Your task to perform on an android device: Clear all items from cart on walmart. Add dell xps to the cart on walmart Image 0: 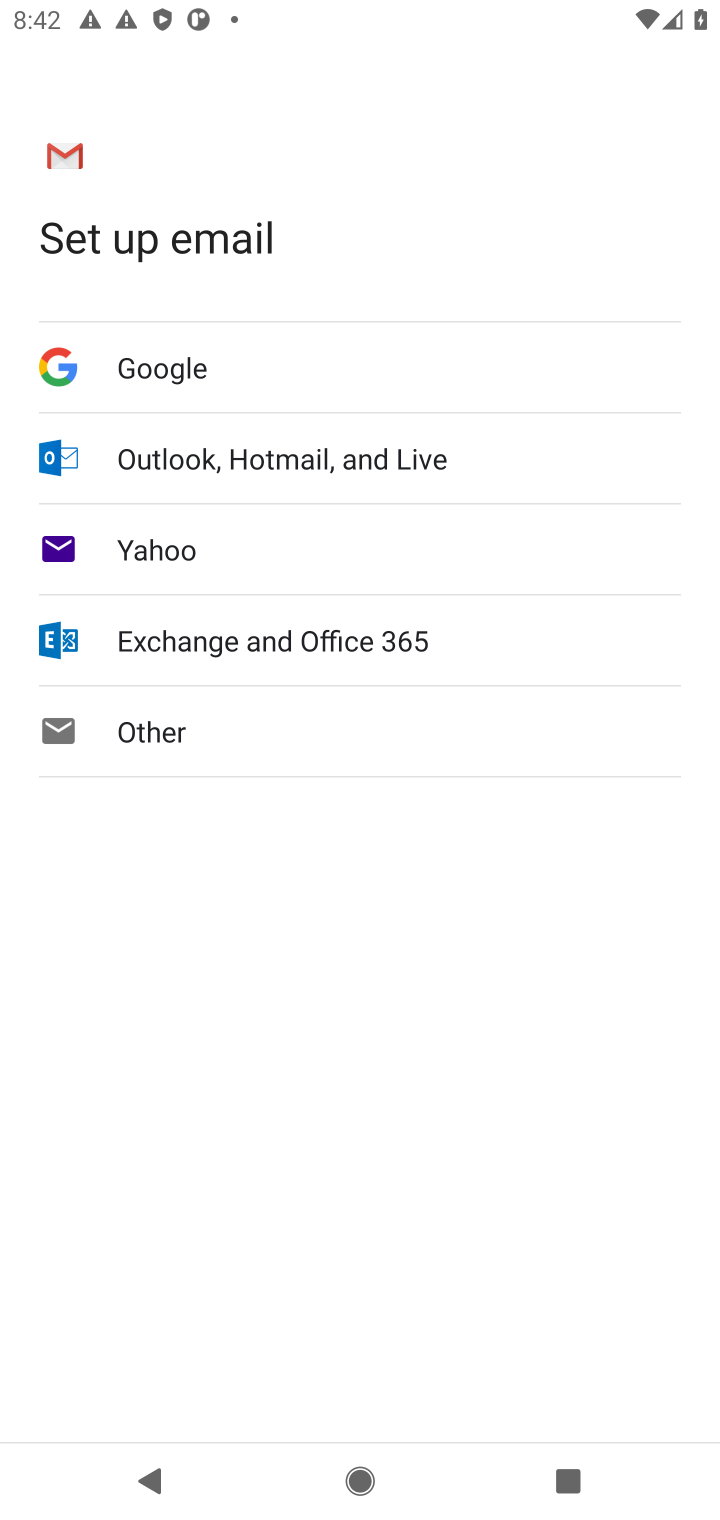
Step 0: press home button
Your task to perform on an android device: Clear all items from cart on walmart. Add dell xps to the cart on walmart Image 1: 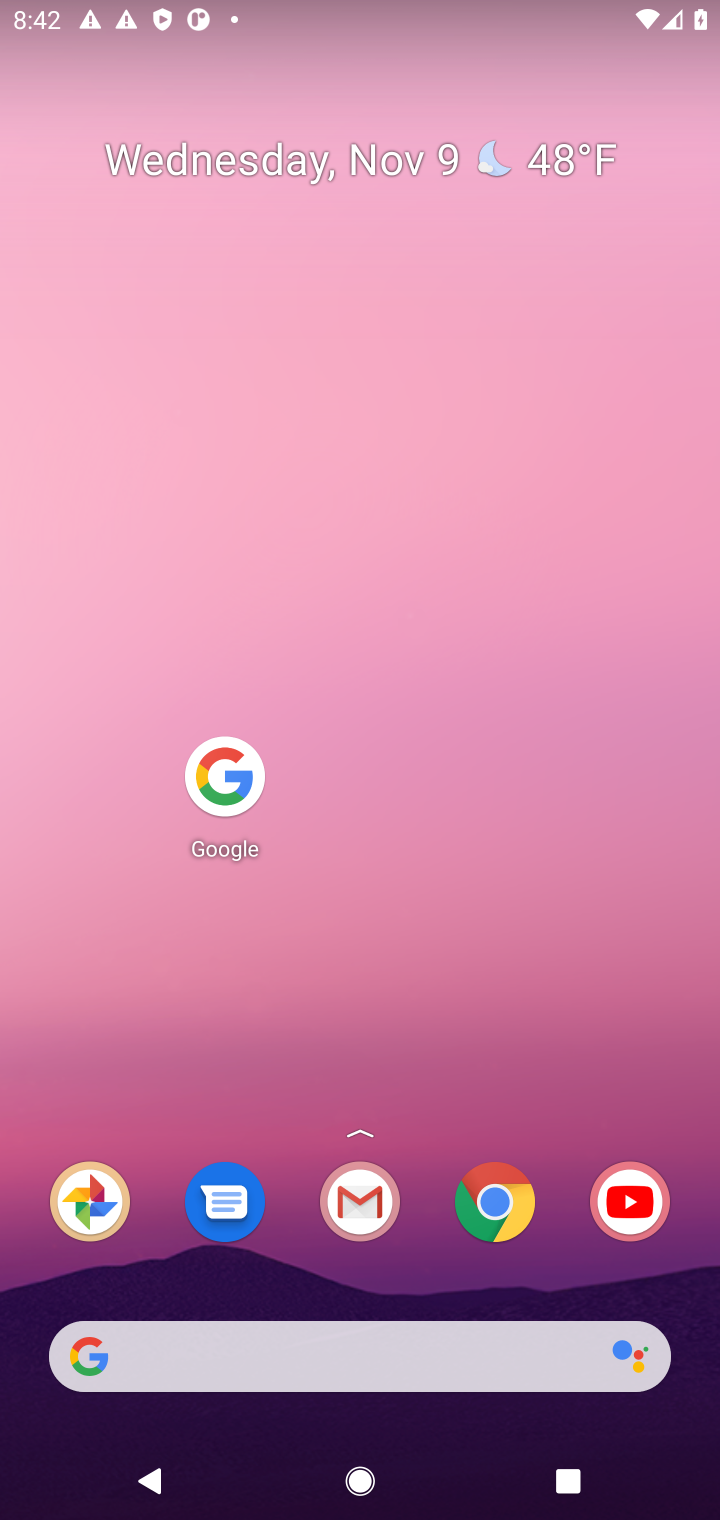
Step 1: click (214, 774)
Your task to perform on an android device: Clear all items from cart on walmart. Add dell xps to the cart on walmart Image 2: 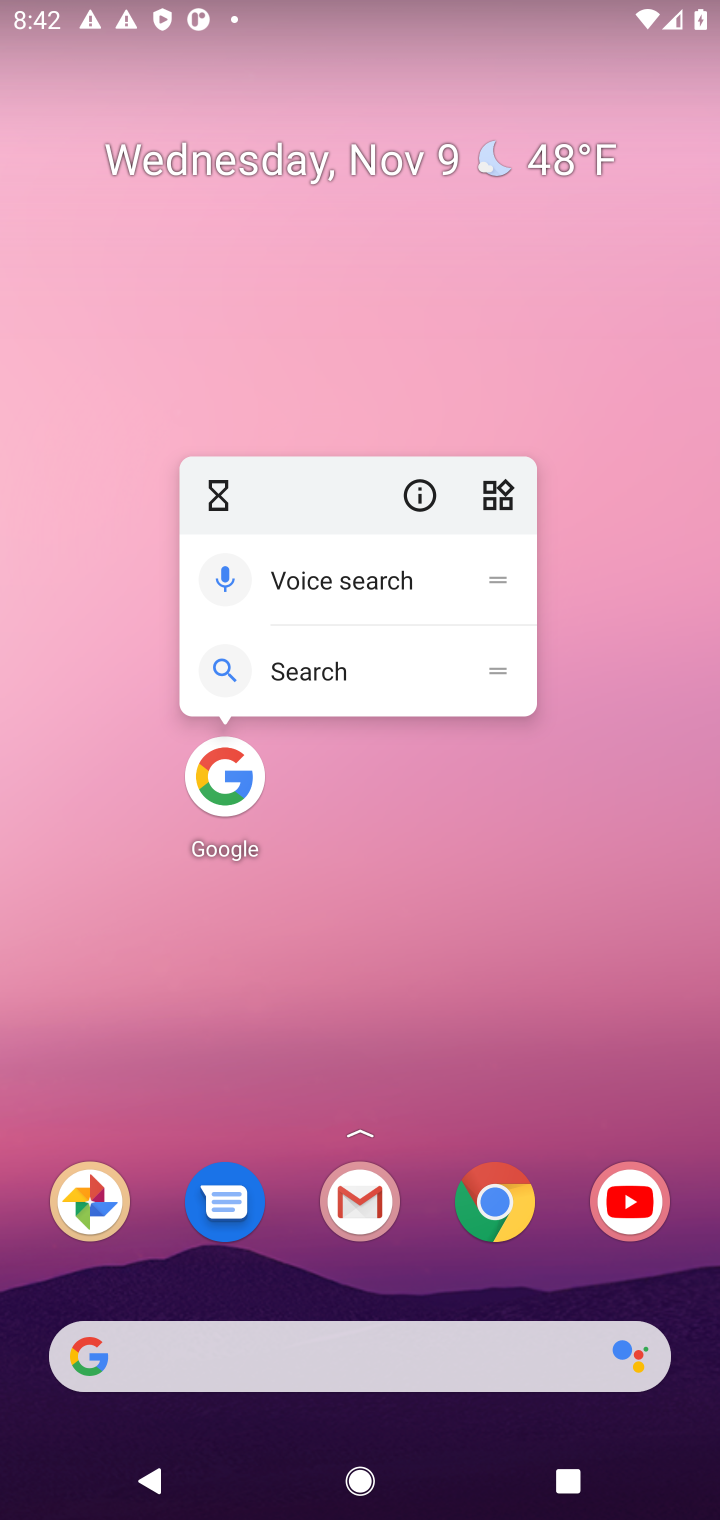
Step 2: click (228, 792)
Your task to perform on an android device: Clear all items from cart on walmart. Add dell xps to the cart on walmart Image 3: 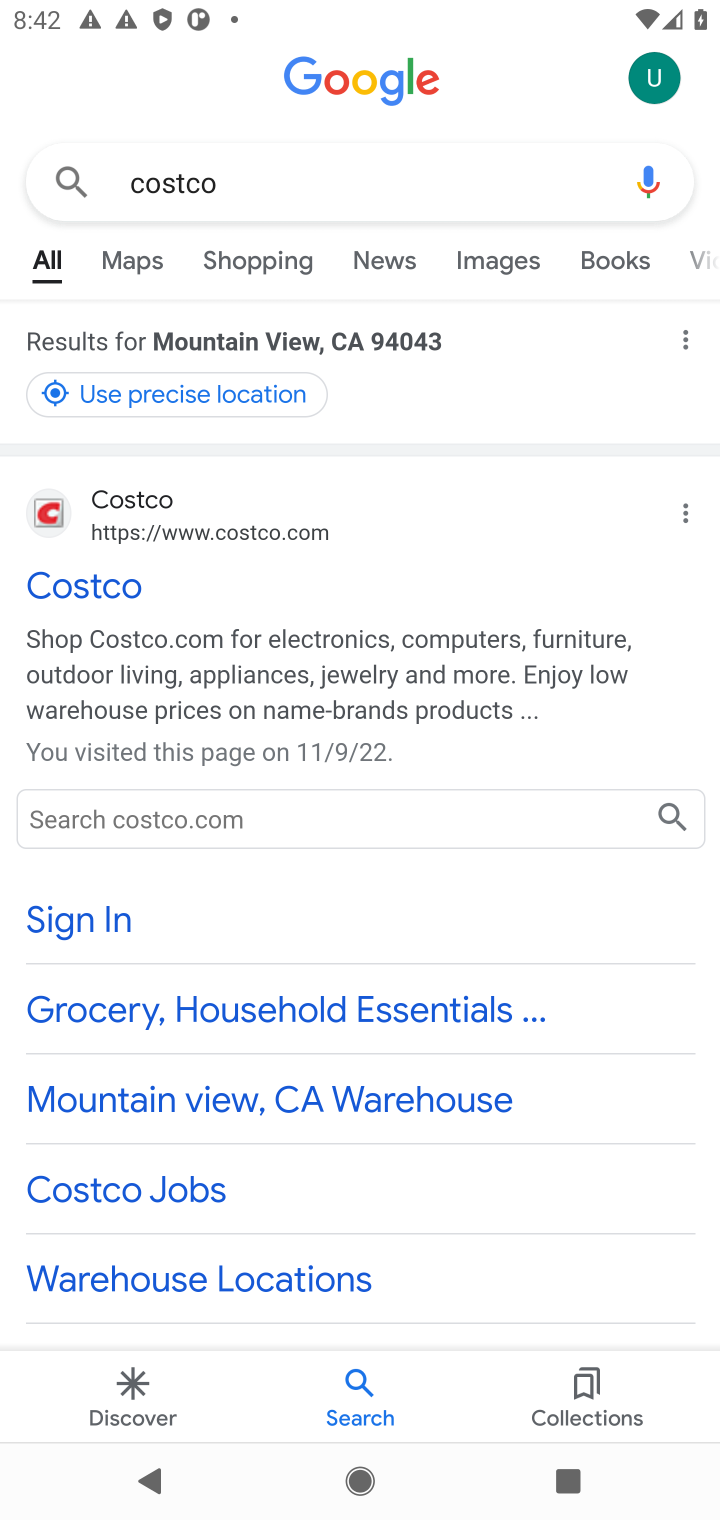
Step 3: click (251, 182)
Your task to perform on an android device: Clear all items from cart on walmart. Add dell xps to the cart on walmart Image 4: 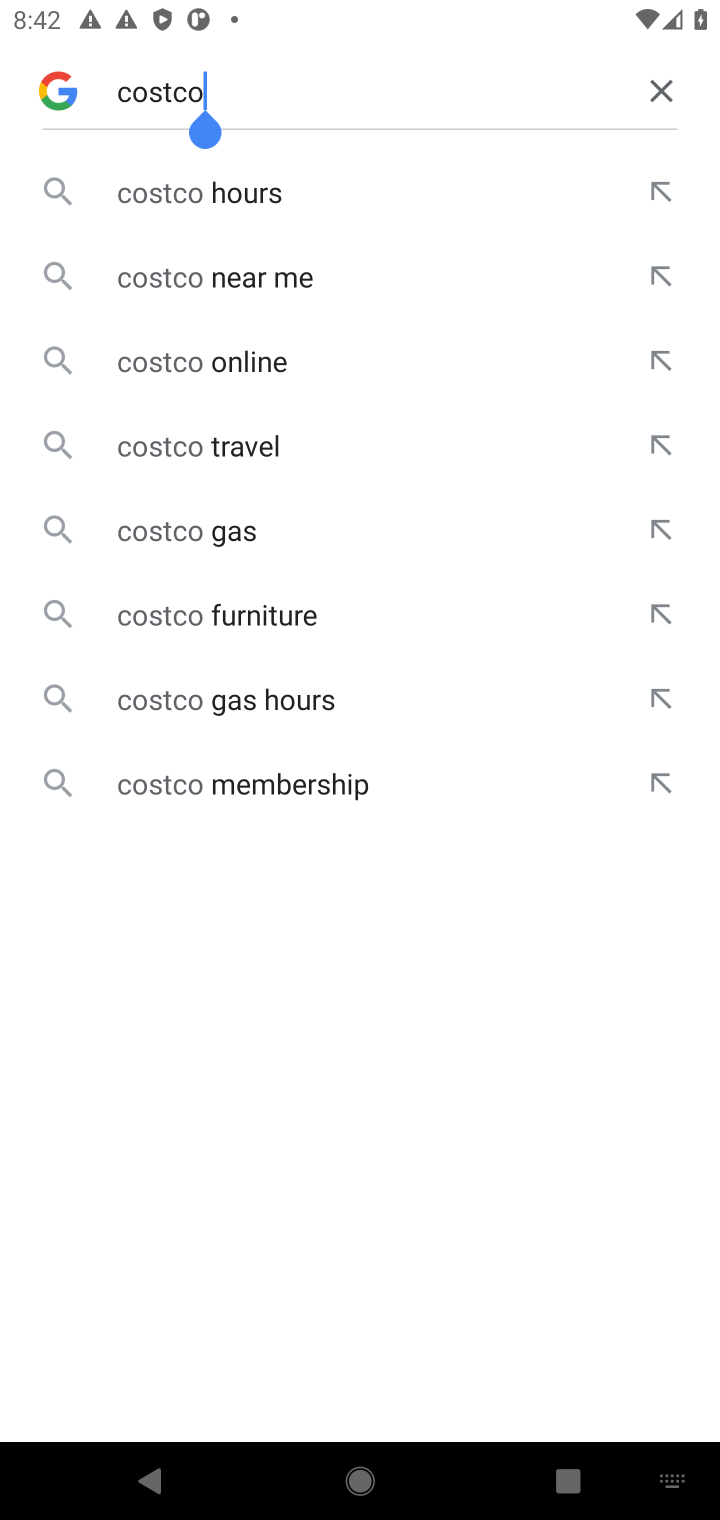
Step 4: click (658, 82)
Your task to perform on an android device: Clear all items from cart on walmart. Add dell xps to the cart on walmart Image 5: 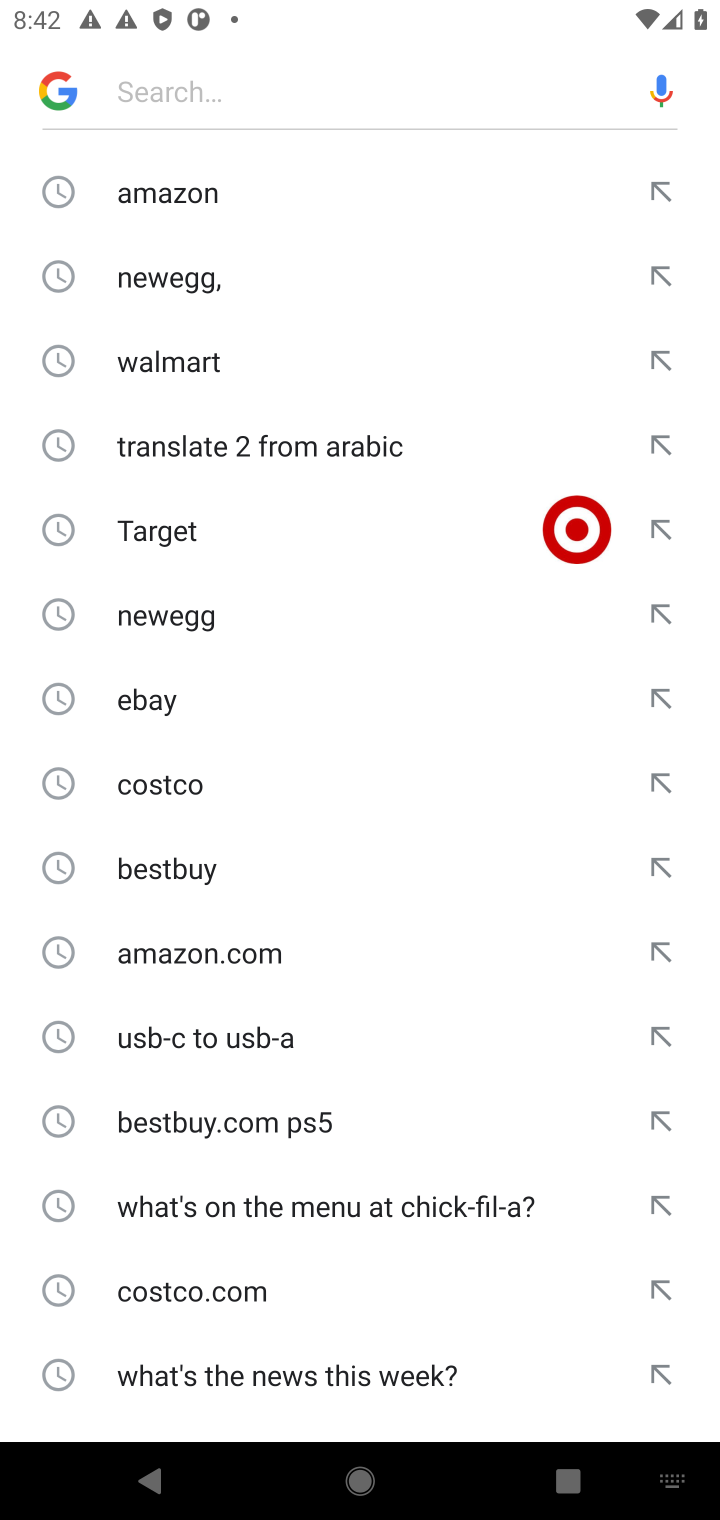
Step 5: click (151, 366)
Your task to perform on an android device: Clear all items from cart on walmart. Add dell xps to the cart on walmart Image 6: 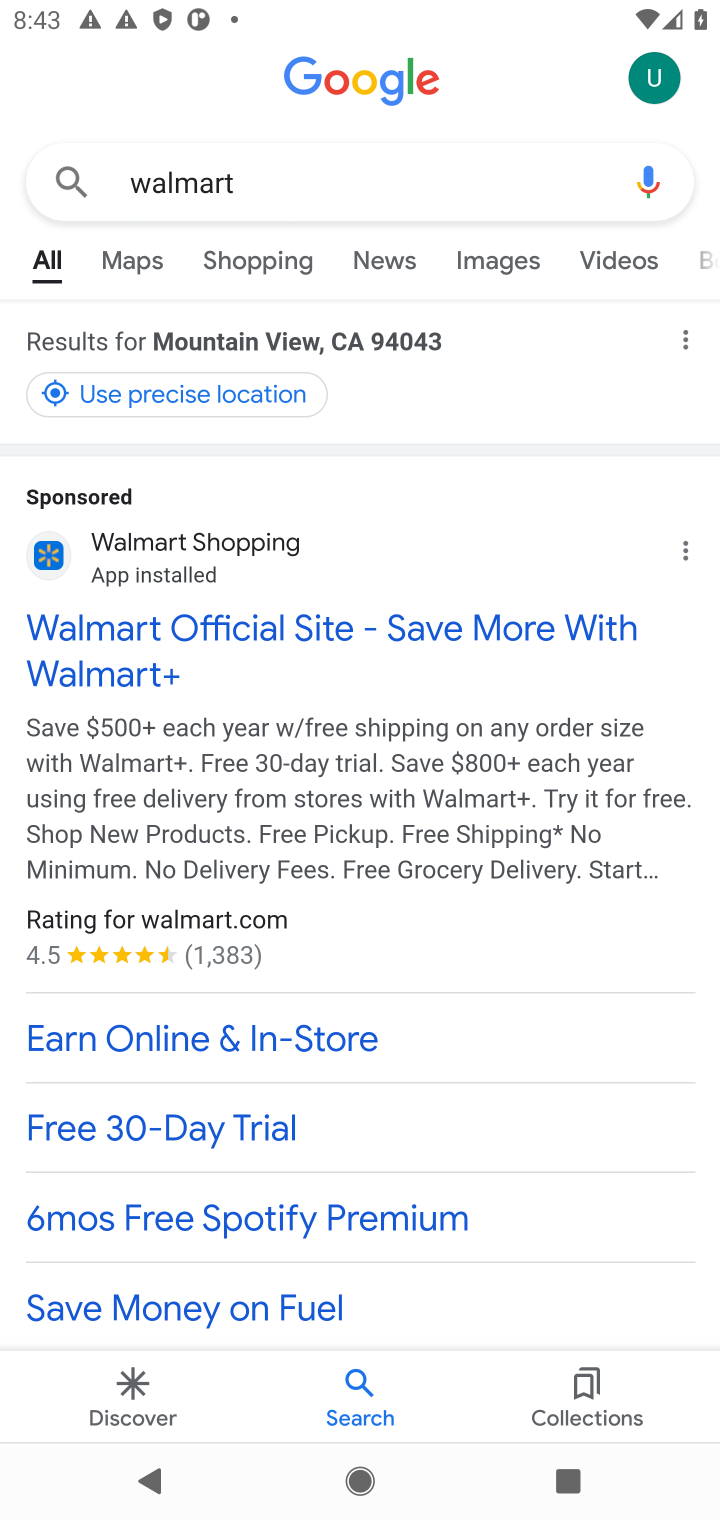
Step 6: drag from (282, 929) to (484, 359)
Your task to perform on an android device: Clear all items from cart on walmart. Add dell xps to the cart on walmart Image 7: 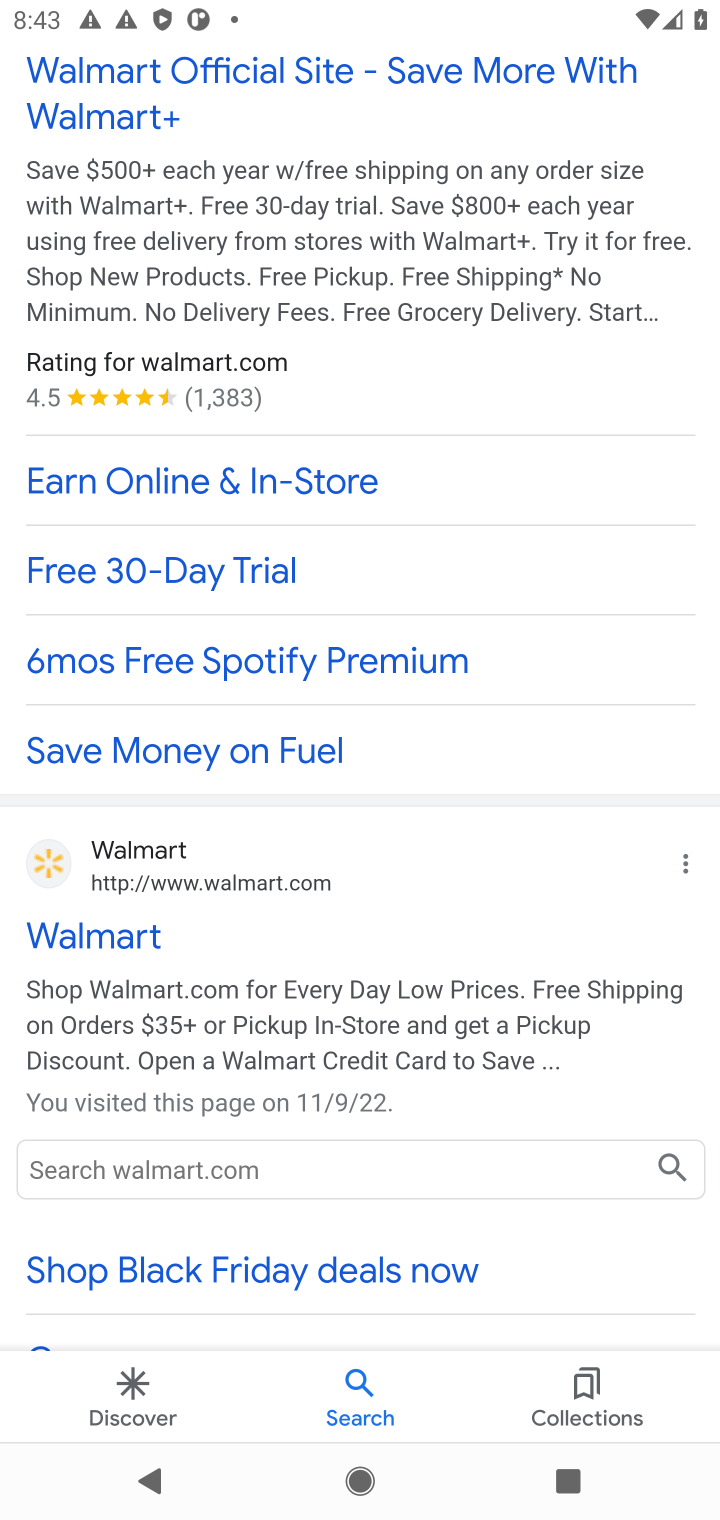
Step 7: click (116, 930)
Your task to perform on an android device: Clear all items from cart on walmart. Add dell xps to the cart on walmart Image 8: 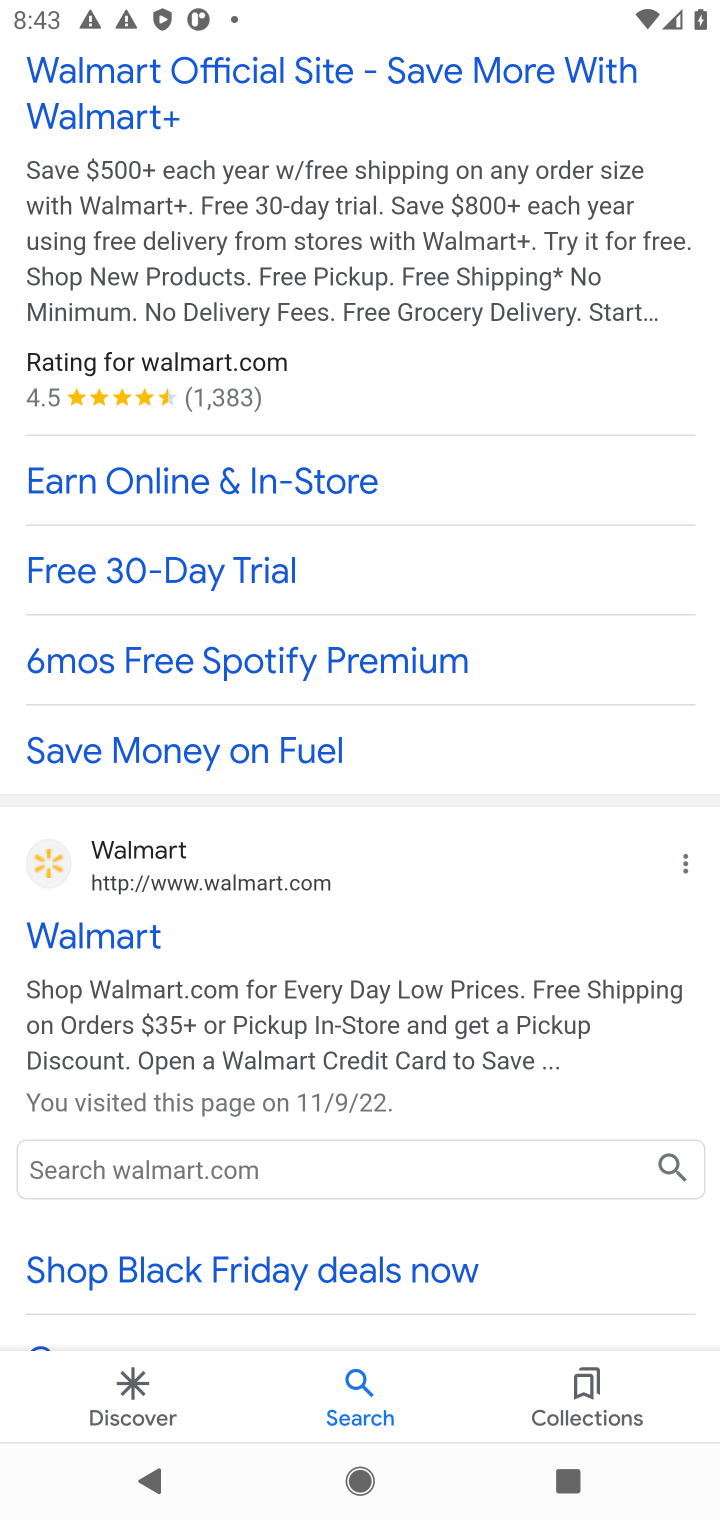
Step 8: click (79, 932)
Your task to perform on an android device: Clear all items from cart on walmart. Add dell xps to the cart on walmart Image 9: 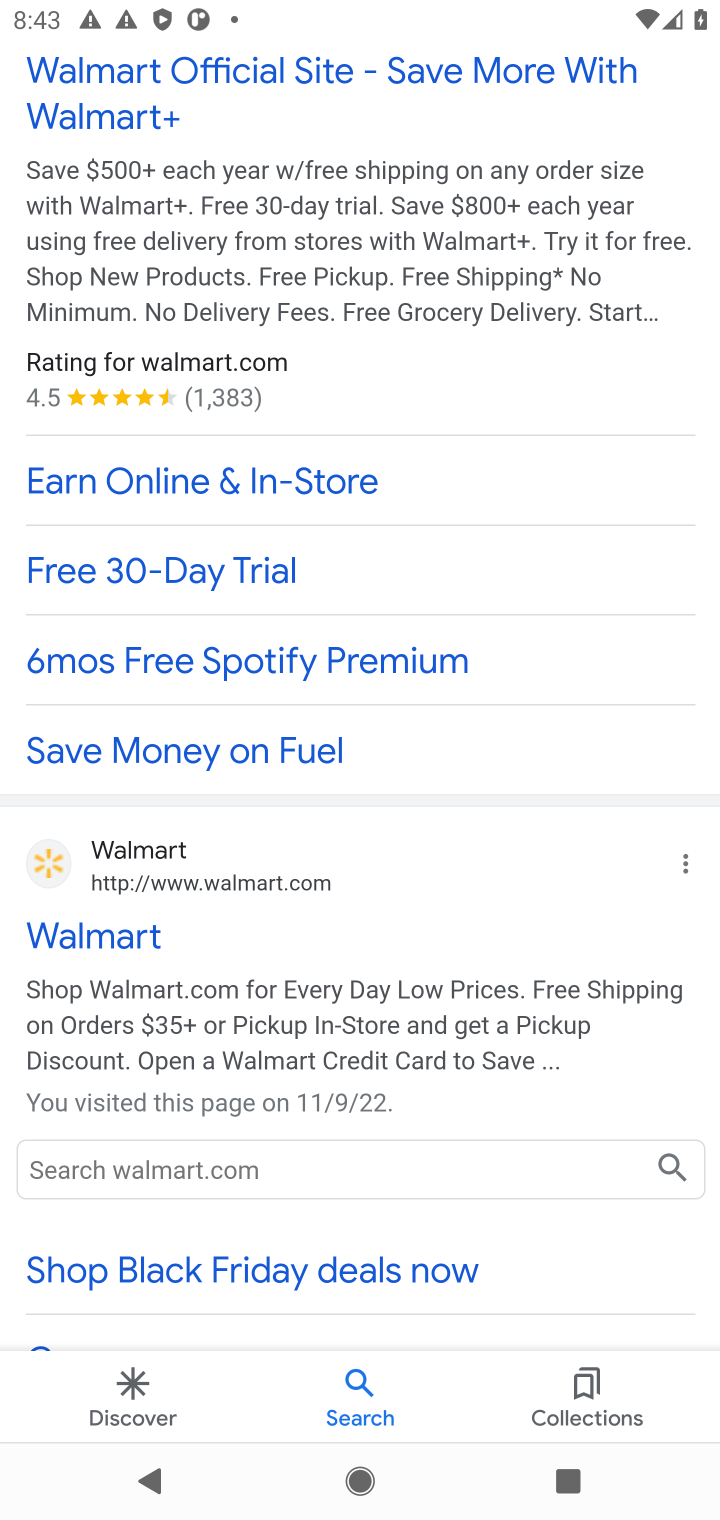
Step 9: click (87, 934)
Your task to perform on an android device: Clear all items from cart on walmart. Add dell xps to the cart on walmart Image 10: 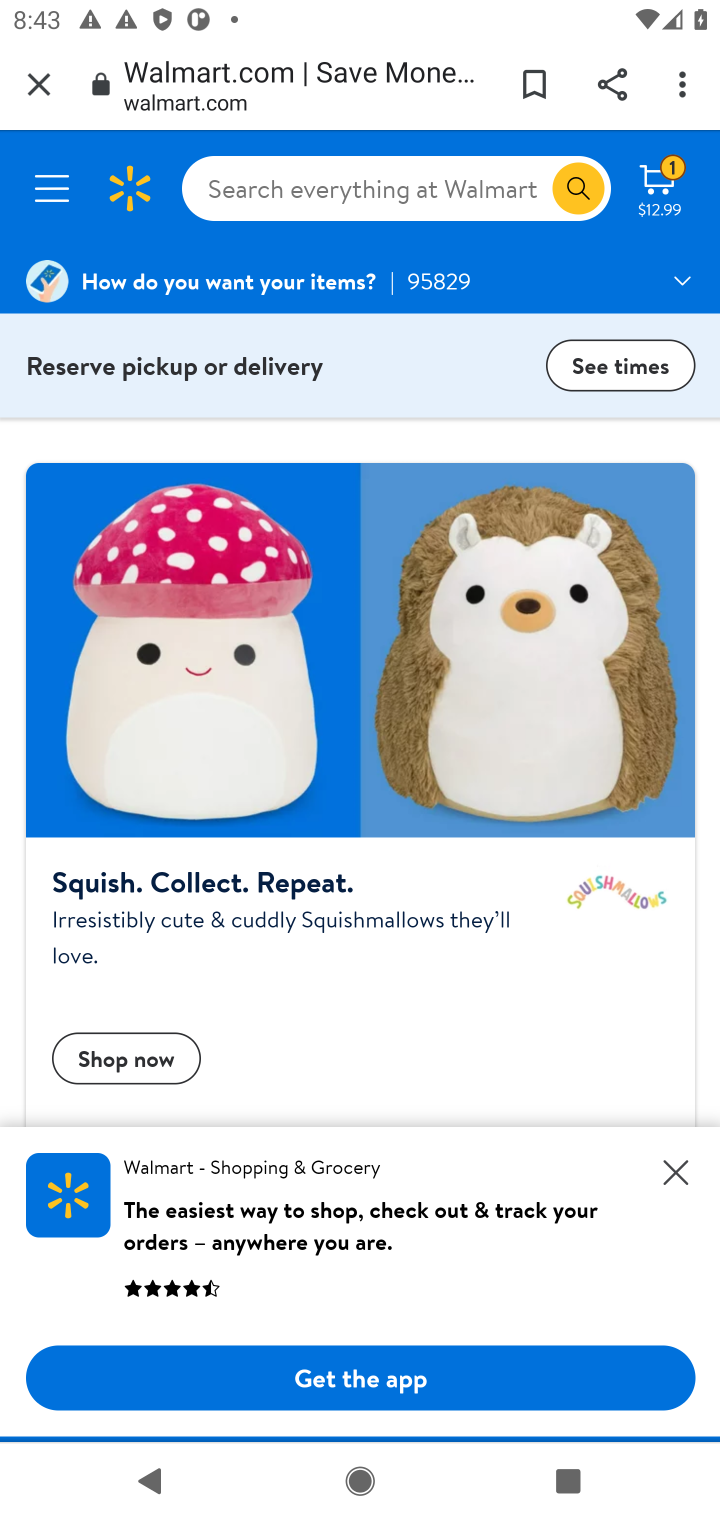
Step 10: click (663, 183)
Your task to perform on an android device: Clear all items from cart on walmart. Add dell xps to the cart on walmart Image 11: 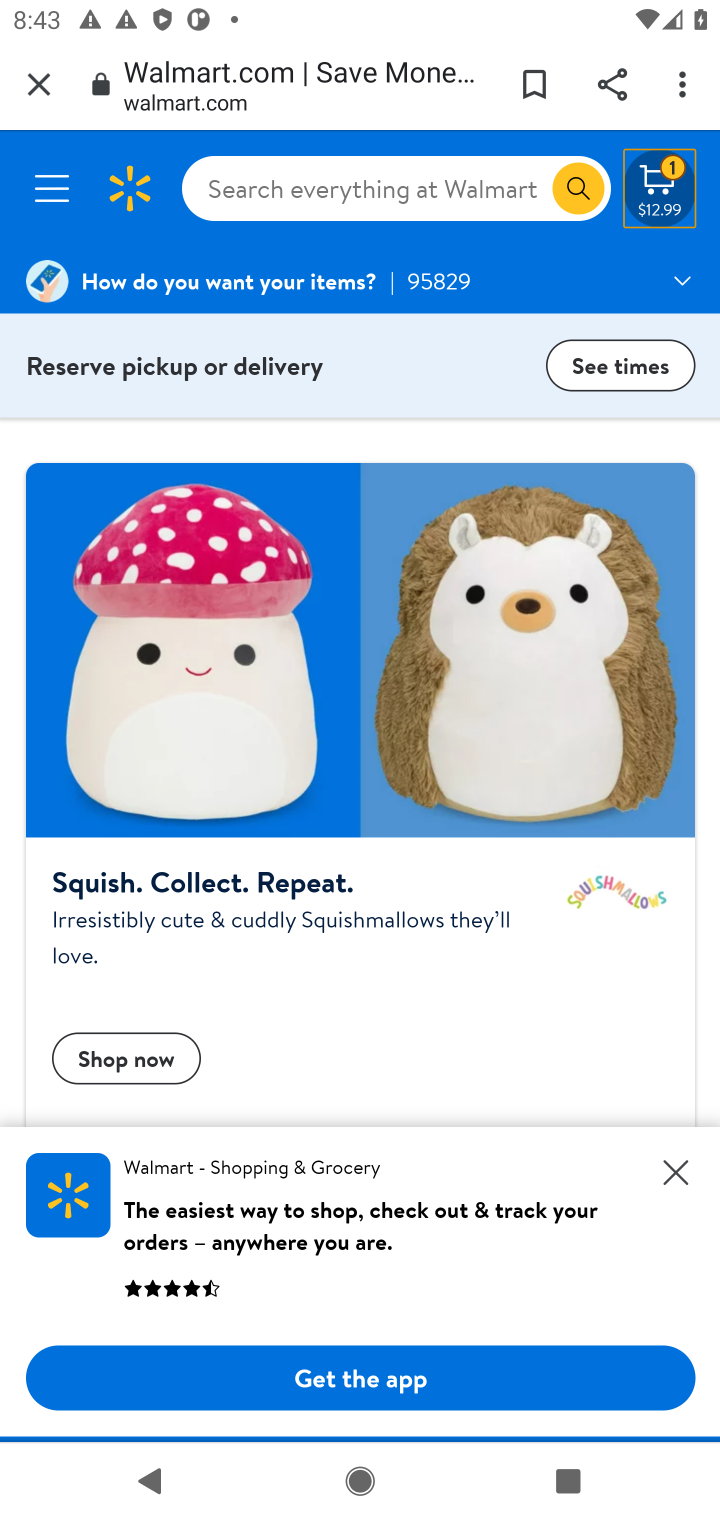
Step 11: click (663, 177)
Your task to perform on an android device: Clear all items from cart on walmart. Add dell xps to the cart on walmart Image 12: 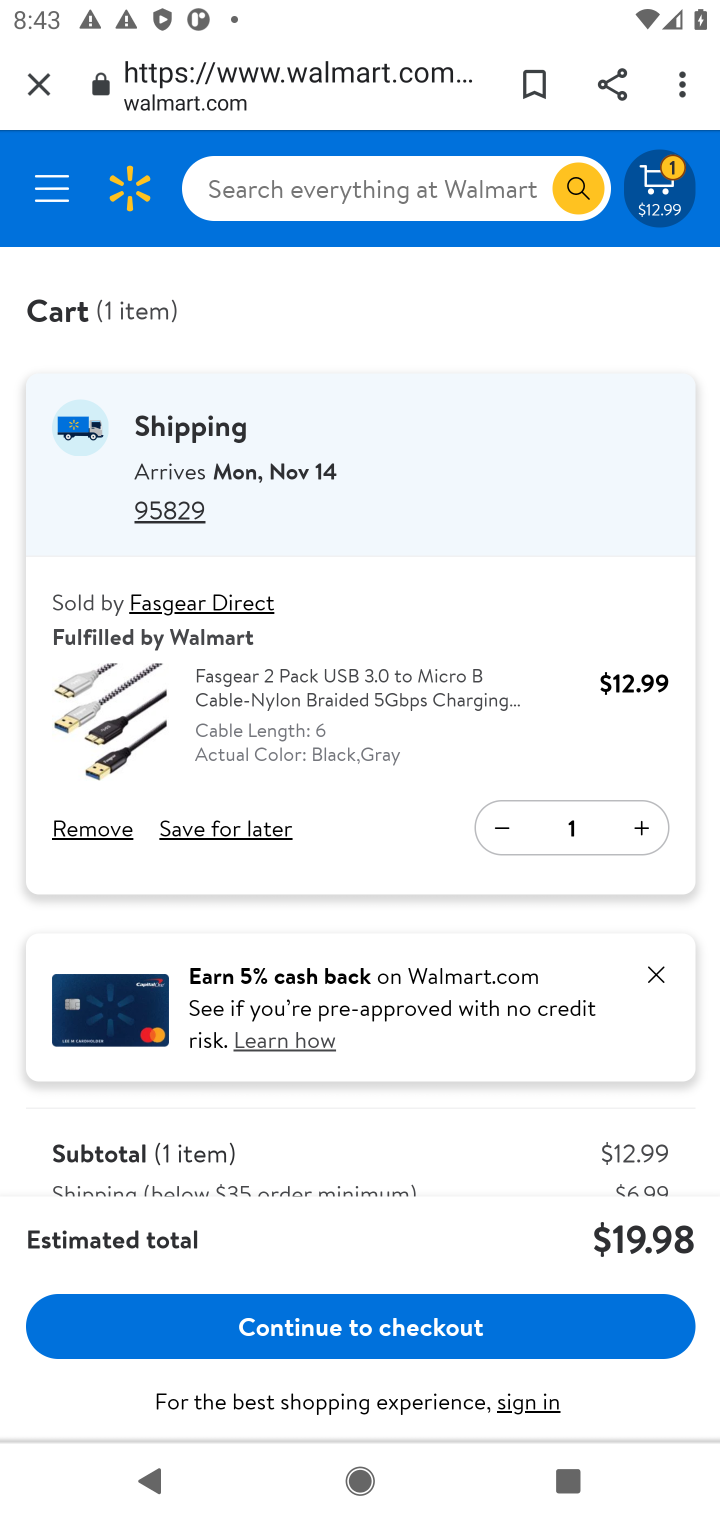
Step 12: drag from (338, 1098) to (413, 834)
Your task to perform on an android device: Clear all items from cart on walmart. Add dell xps to the cart on walmart Image 13: 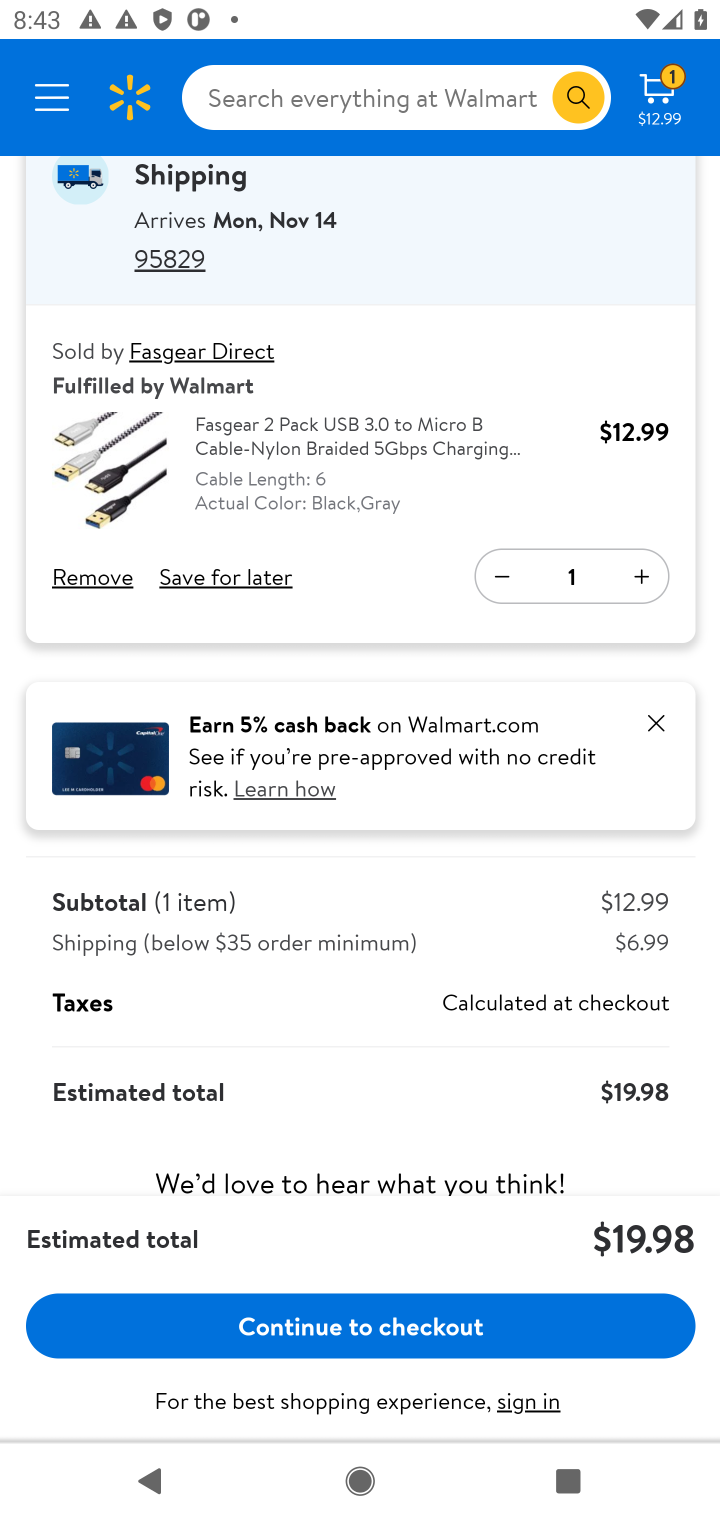
Step 13: click (86, 572)
Your task to perform on an android device: Clear all items from cart on walmart. Add dell xps to the cart on walmart Image 14: 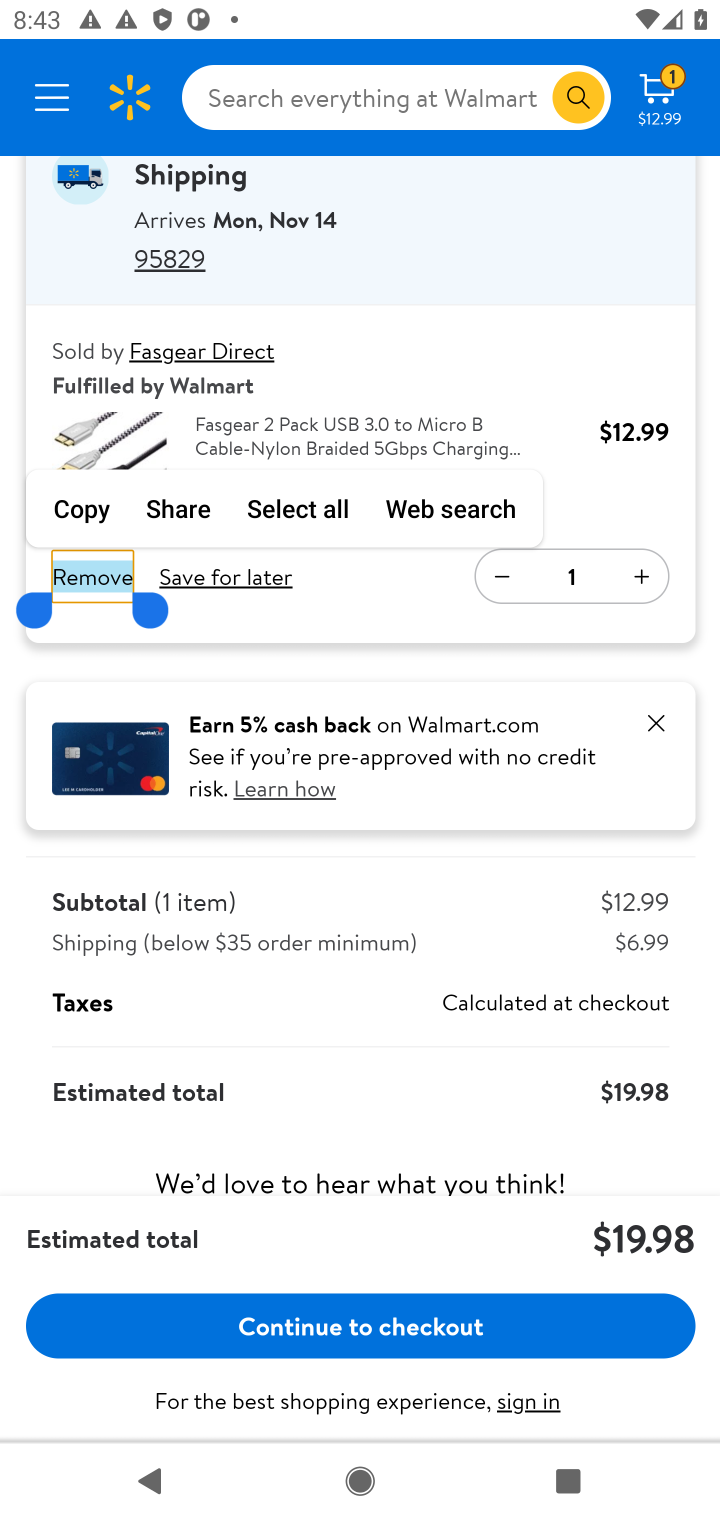
Step 14: click (81, 566)
Your task to perform on an android device: Clear all items from cart on walmart. Add dell xps to the cart on walmart Image 15: 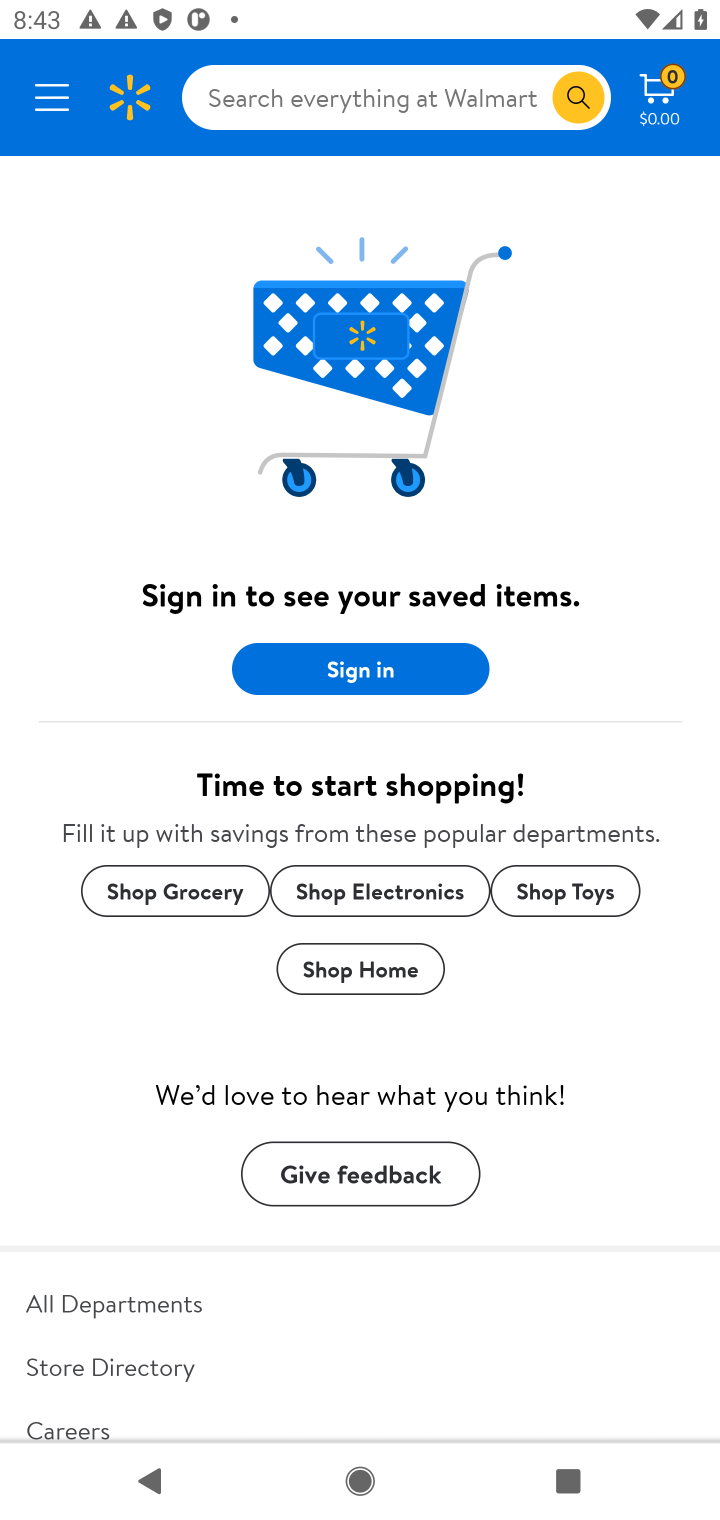
Step 15: click (387, 96)
Your task to perform on an android device: Clear all items from cart on walmart. Add dell xps to the cart on walmart Image 16: 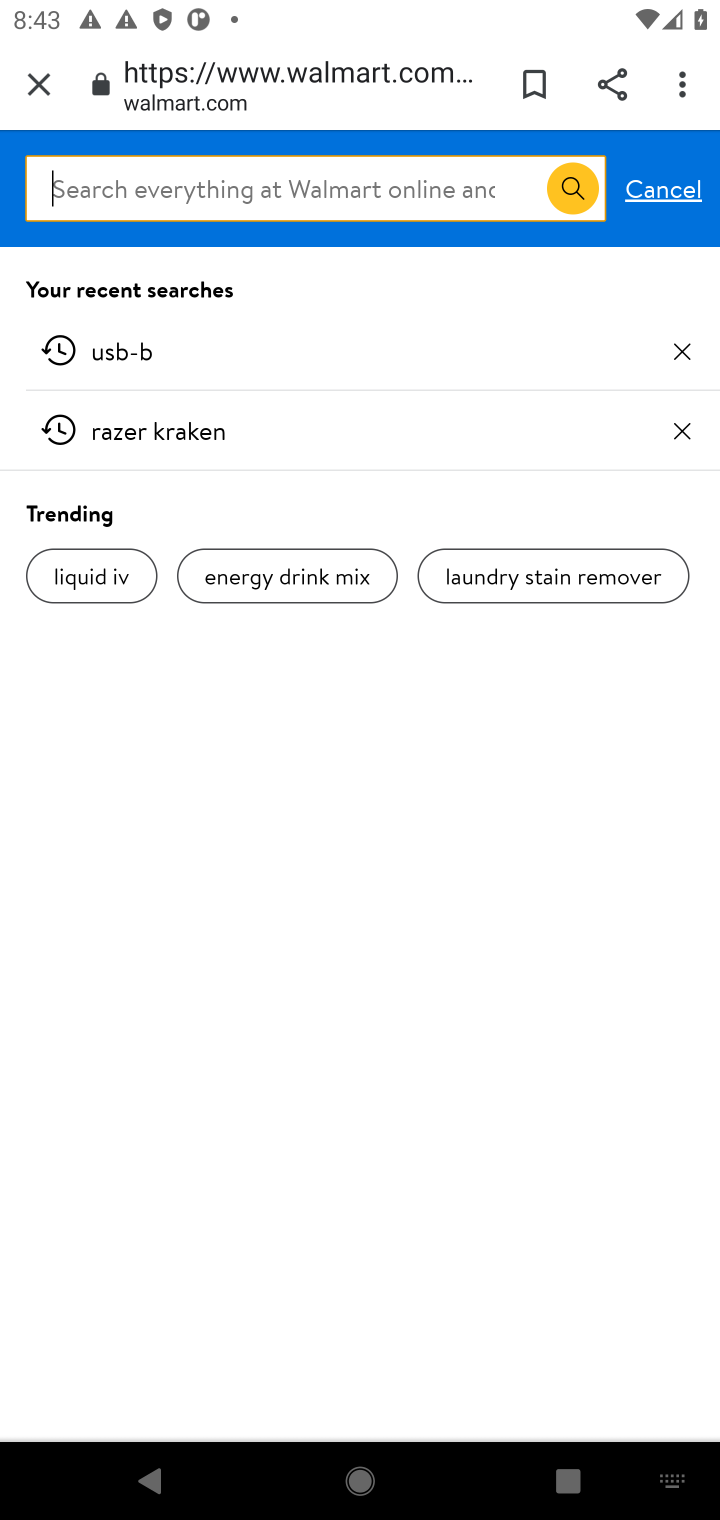
Step 16: type "dell xps"
Your task to perform on an android device: Clear all items from cart on walmart. Add dell xps to the cart on walmart Image 17: 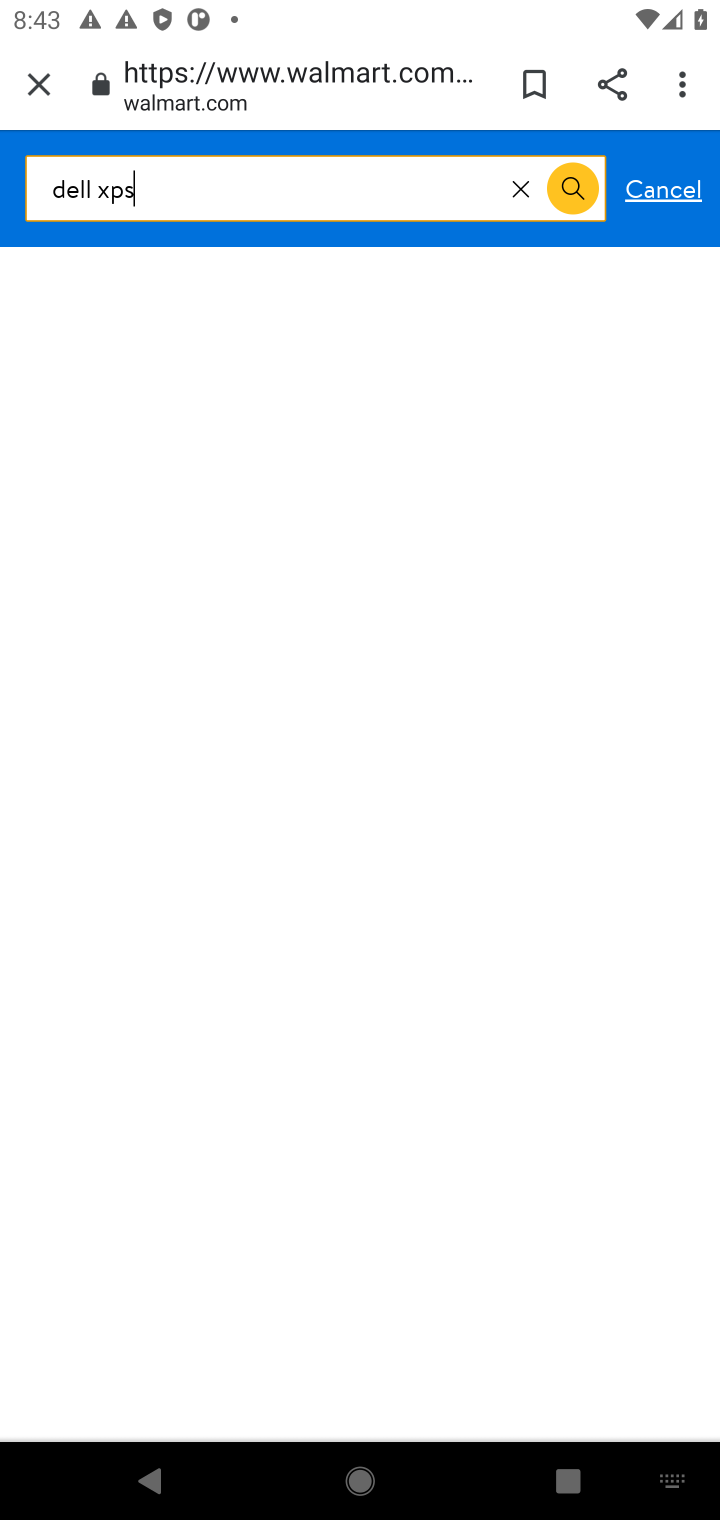
Step 17: press enter
Your task to perform on an android device: Clear all items from cart on walmart. Add dell xps to the cart on walmart Image 18: 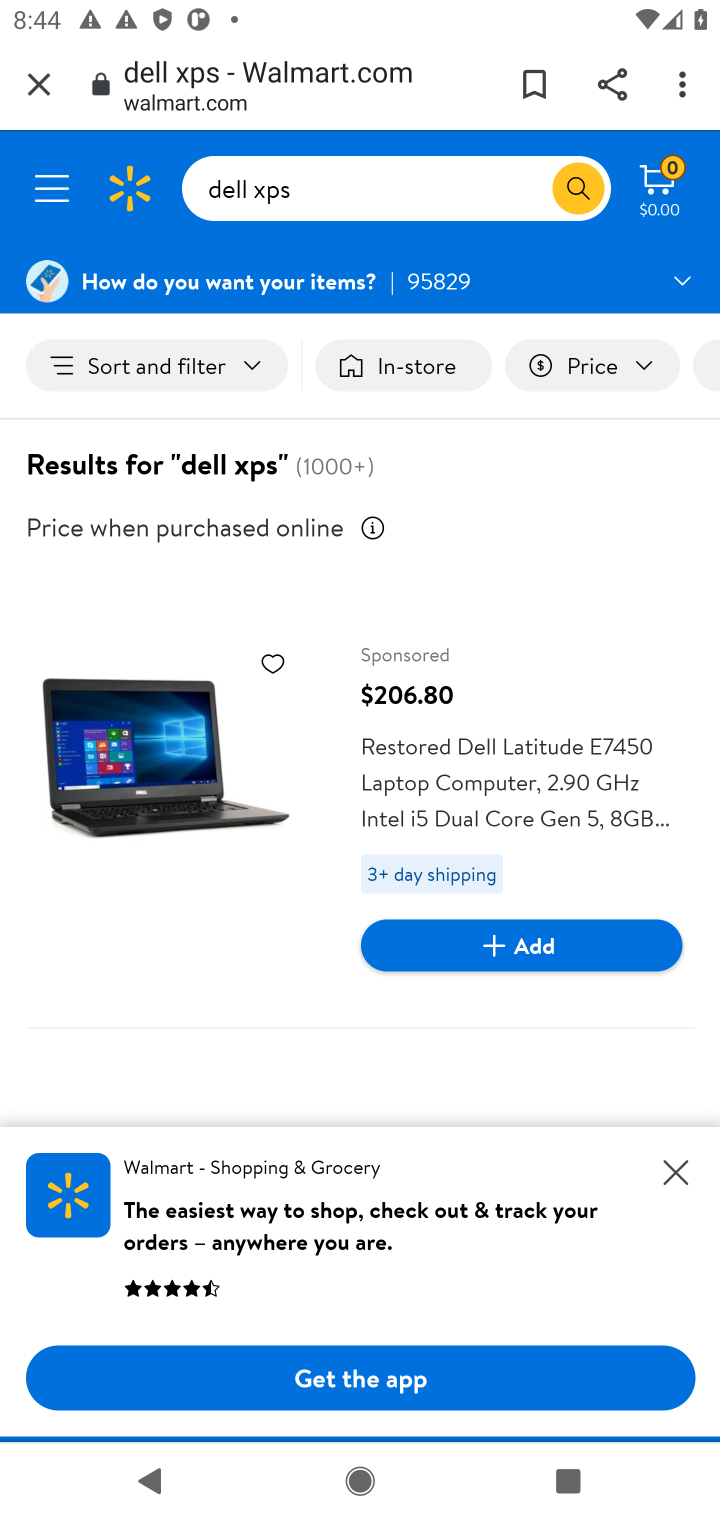
Step 18: click (678, 1161)
Your task to perform on an android device: Clear all items from cart on walmart. Add dell xps to the cart on walmart Image 19: 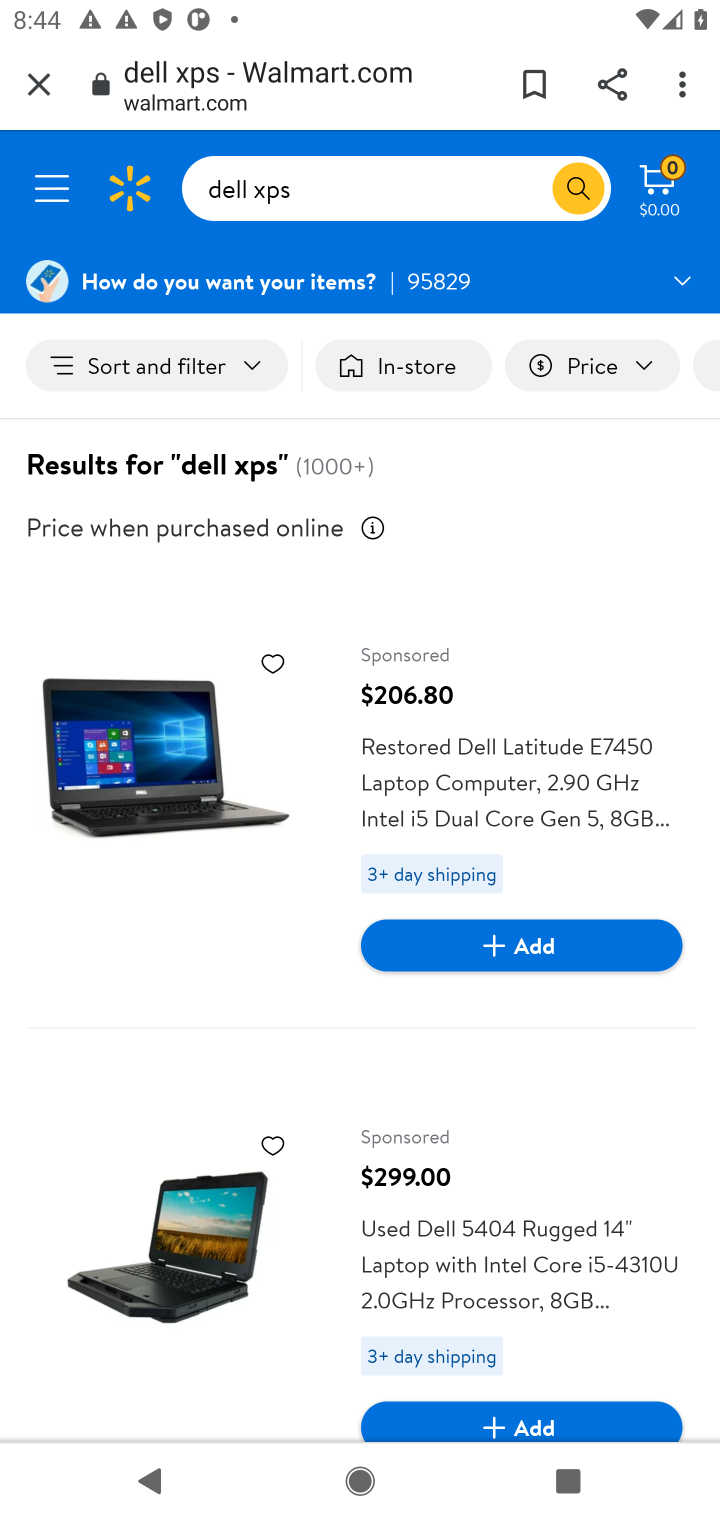
Step 19: drag from (400, 1278) to (651, 533)
Your task to perform on an android device: Clear all items from cart on walmart. Add dell xps to the cart on walmart Image 20: 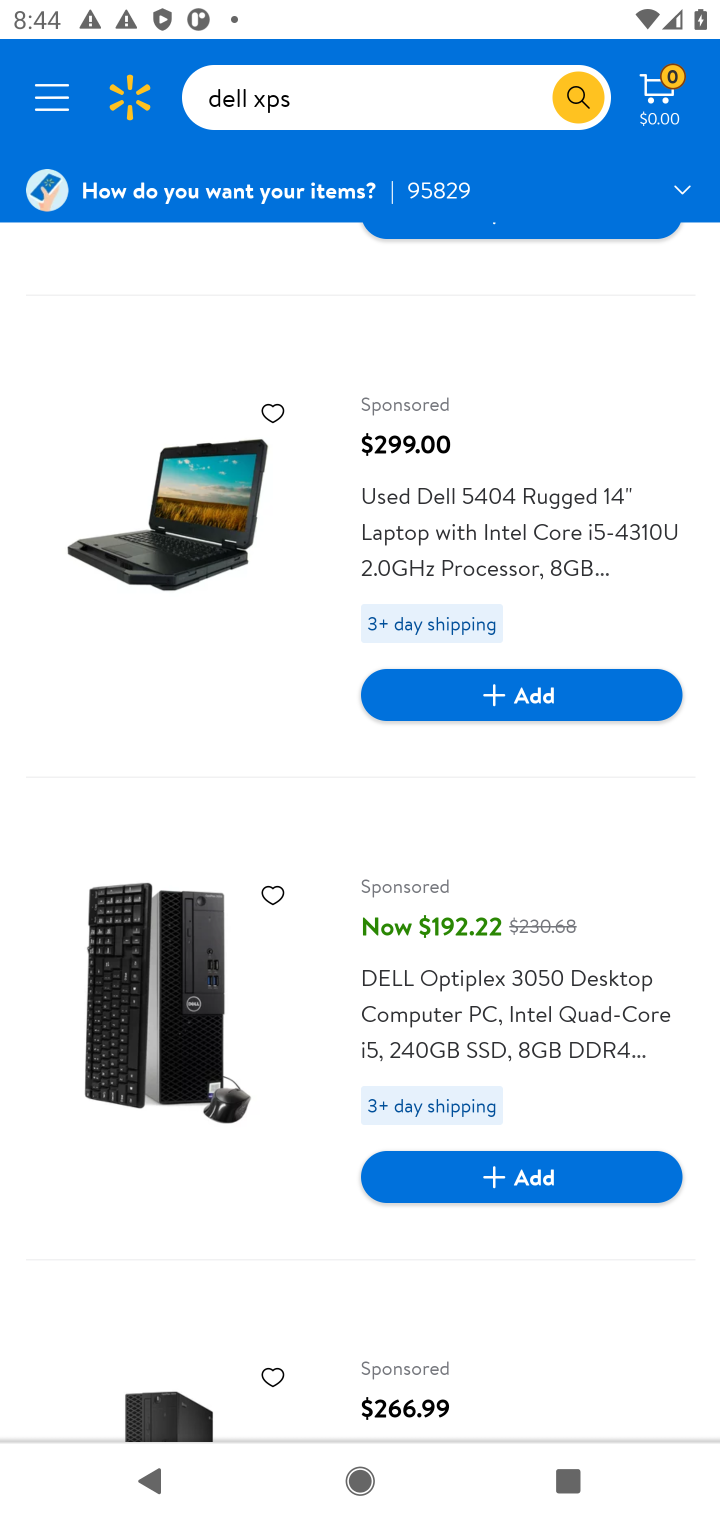
Step 20: drag from (527, 1059) to (640, 506)
Your task to perform on an android device: Clear all items from cart on walmart. Add dell xps to the cart on walmart Image 21: 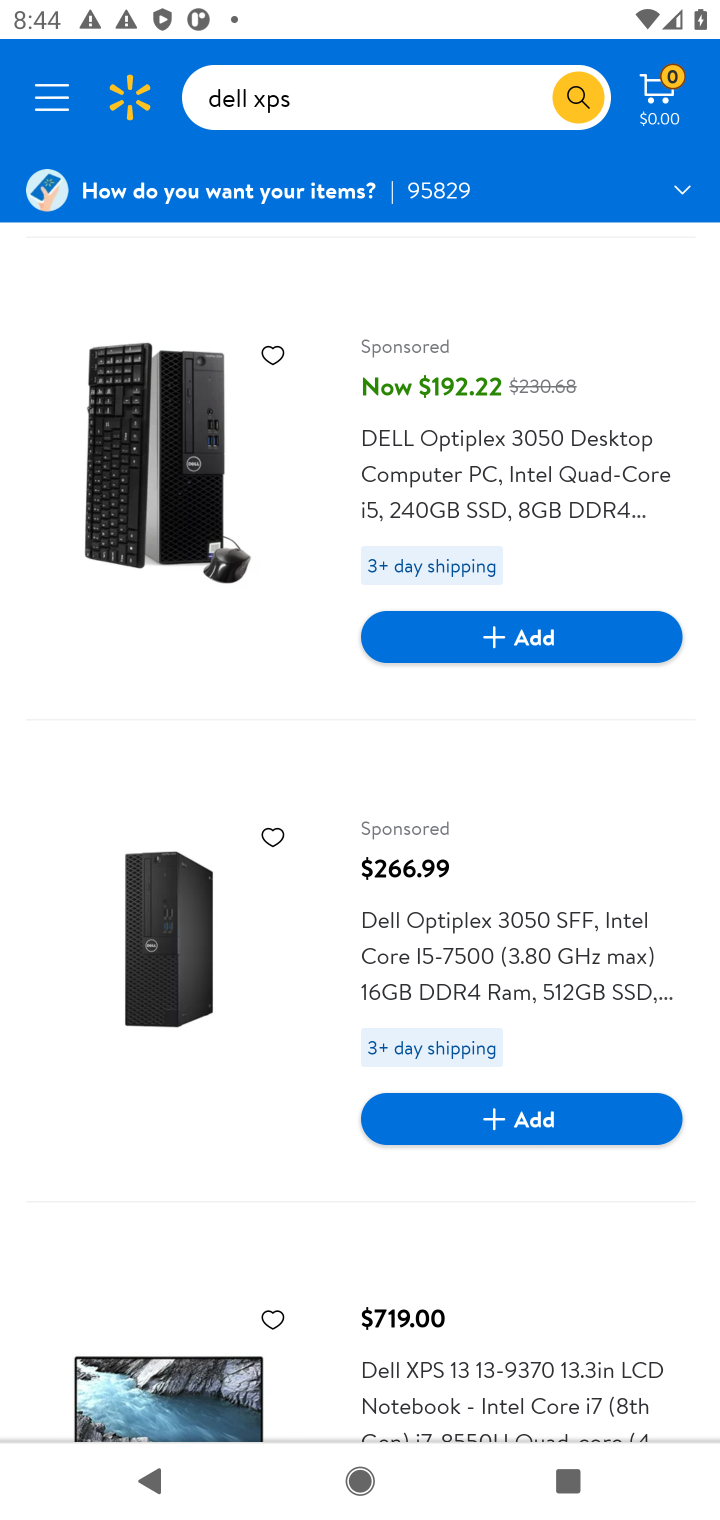
Step 21: drag from (517, 1307) to (563, 609)
Your task to perform on an android device: Clear all items from cart on walmart. Add dell xps to the cart on walmart Image 22: 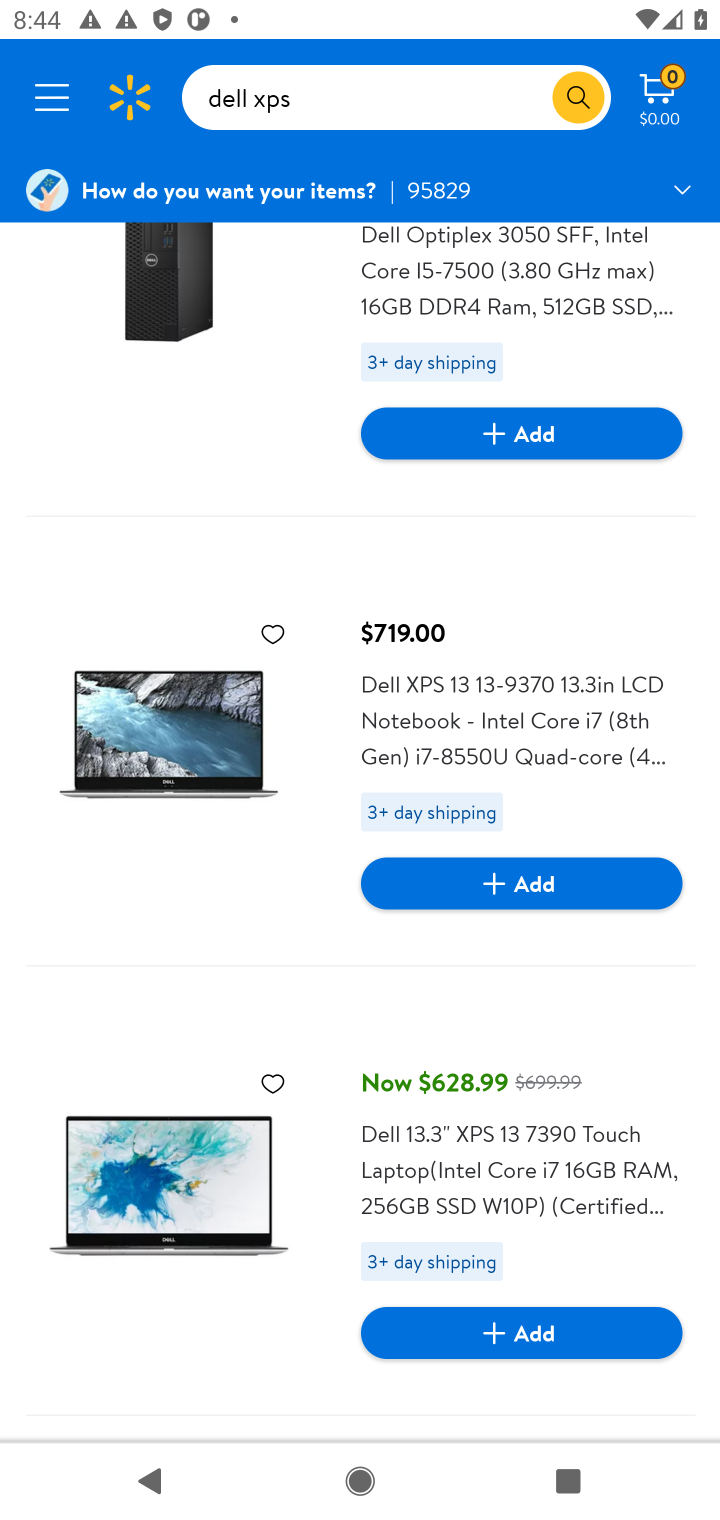
Step 22: click (534, 885)
Your task to perform on an android device: Clear all items from cart on walmart. Add dell xps to the cart on walmart Image 23: 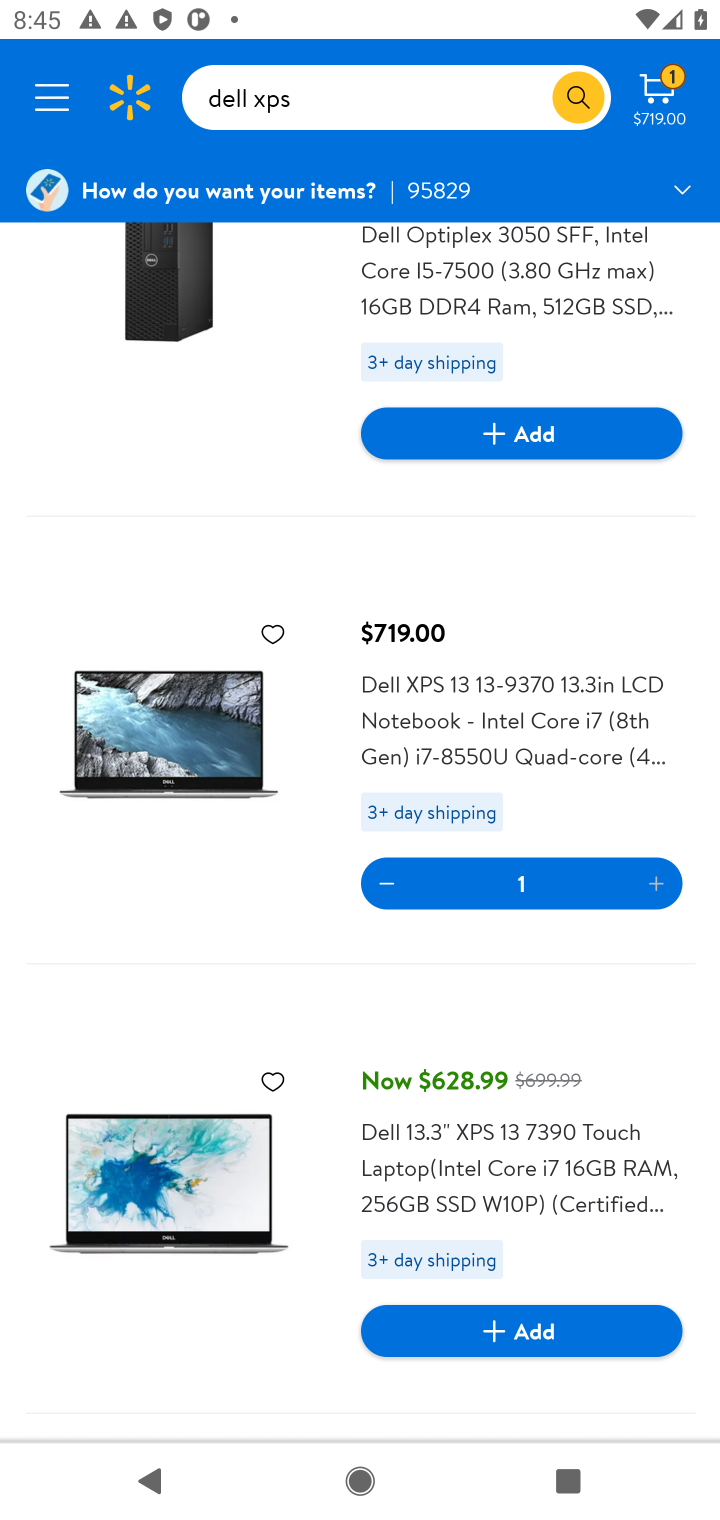
Step 23: click (654, 96)
Your task to perform on an android device: Clear all items from cart on walmart. Add dell xps to the cart on walmart Image 24: 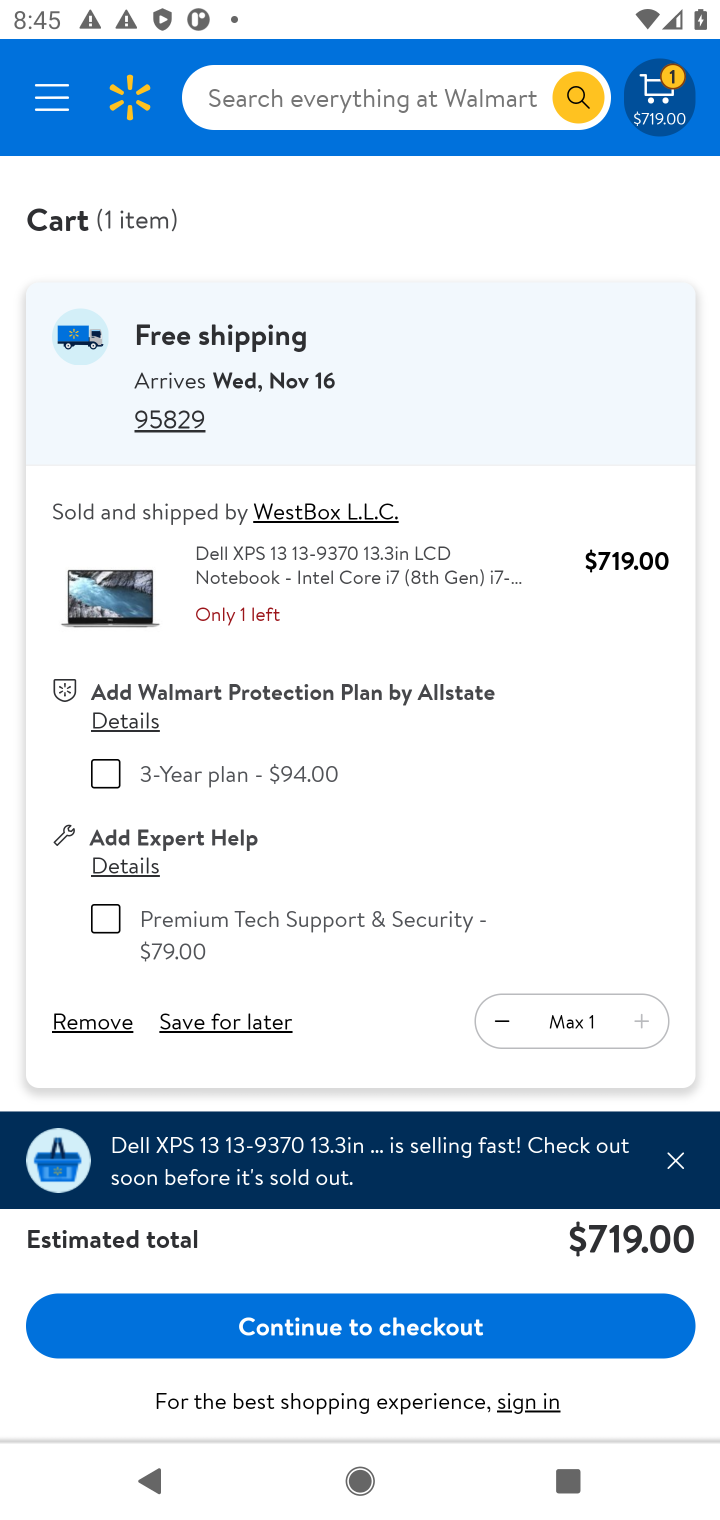
Step 24: task complete